Your task to perform on an android device: Open network settings Image 0: 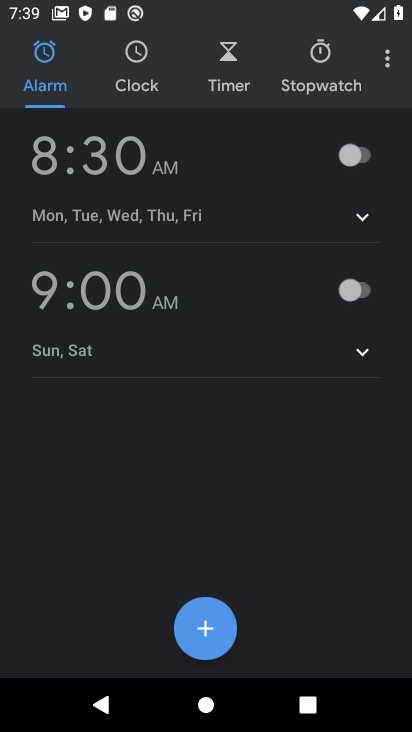
Step 0: press home button
Your task to perform on an android device: Open network settings Image 1: 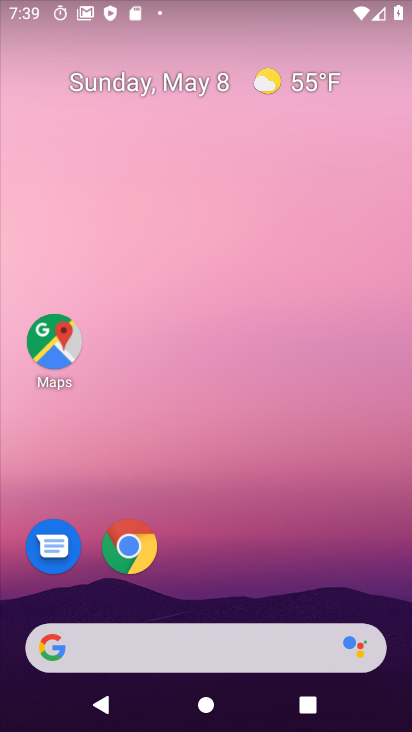
Step 1: drag from (202, 545) to (196, 18)
Your task to perform on an android device: Open network settings Image 2: 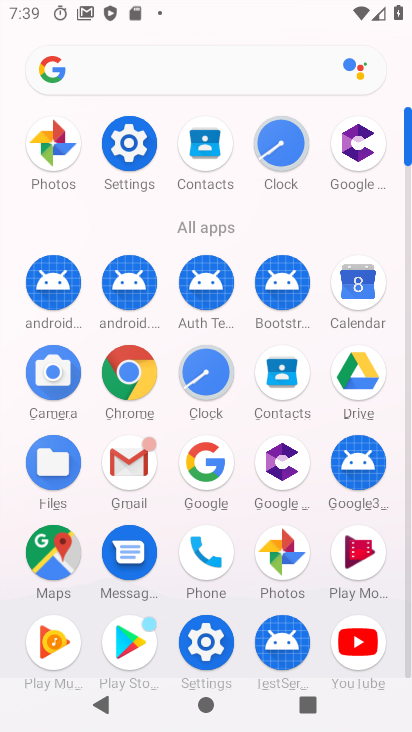
Step 2: click (132, 142)
Your task to perform on an android device: Open network settings Image 3: 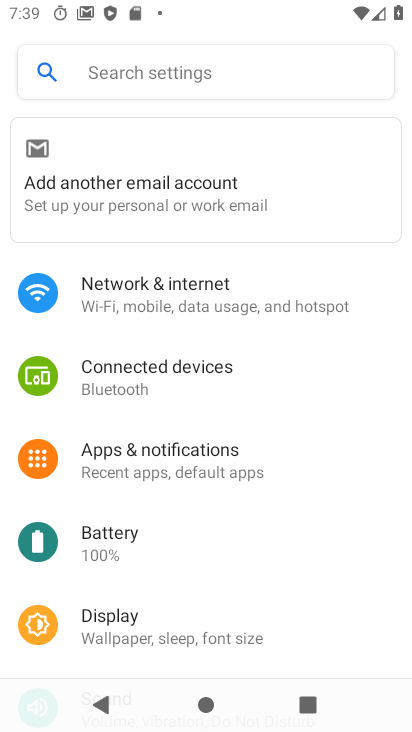
Step 3: click (140, 294)
Your task to perform on an android device: Open network settings Image 4: 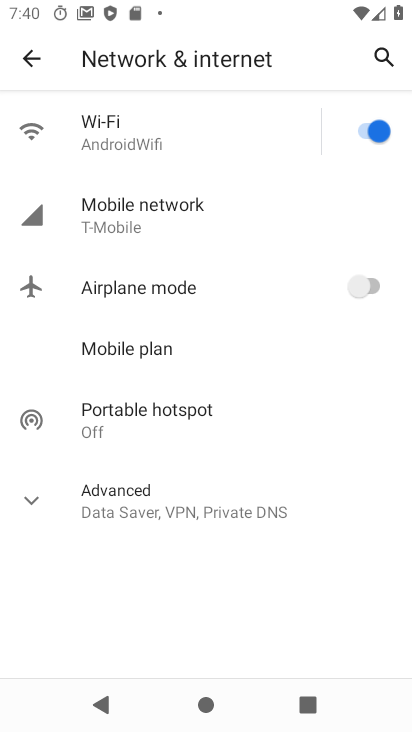
Step 4: task complete